Your task to perform on an android device: Open Google Chrome Image 0: 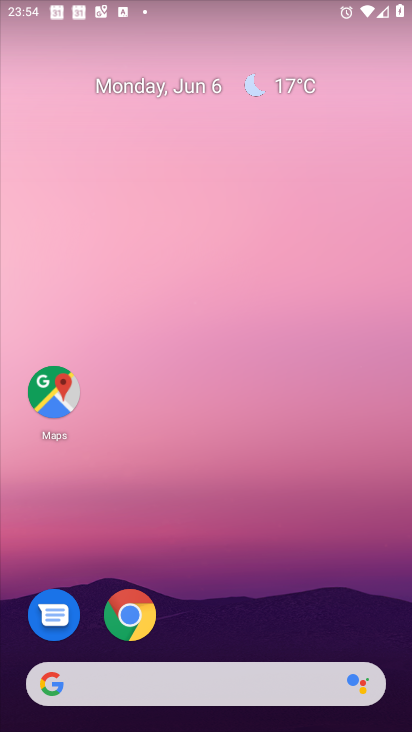
Step 0: click (130, 613)
Your task to perform on an android device: Open Google Chrome Image 1: 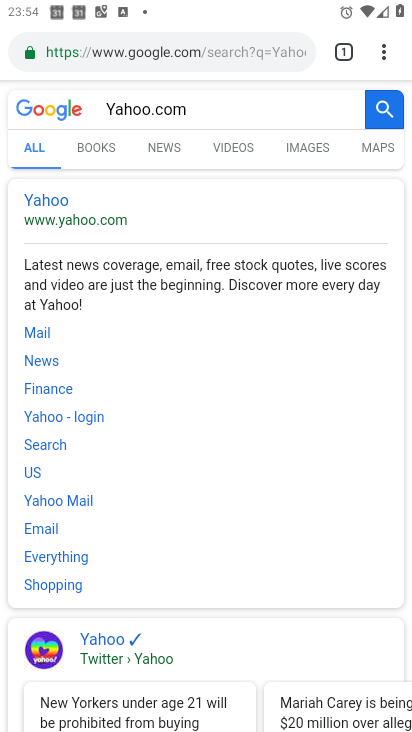
Step 1: task complete